Your task to perform on an android device: open chrome privacy settings Image 0: 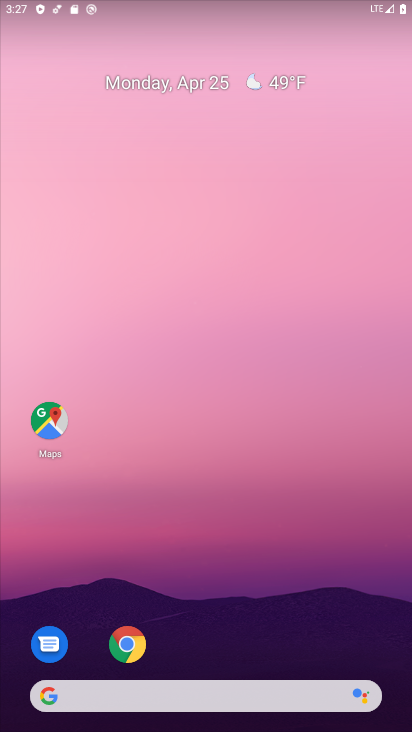
Step 0: click (140, 632)
Your task to perform on an android device: open chrome privacy settings Image 1: 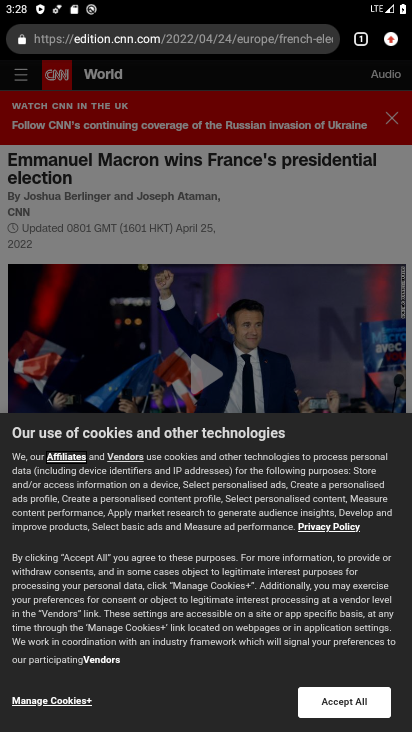
Step 1: click (391, 44)
Your task to perform on an android device: open chrome privacy settings Image 2: 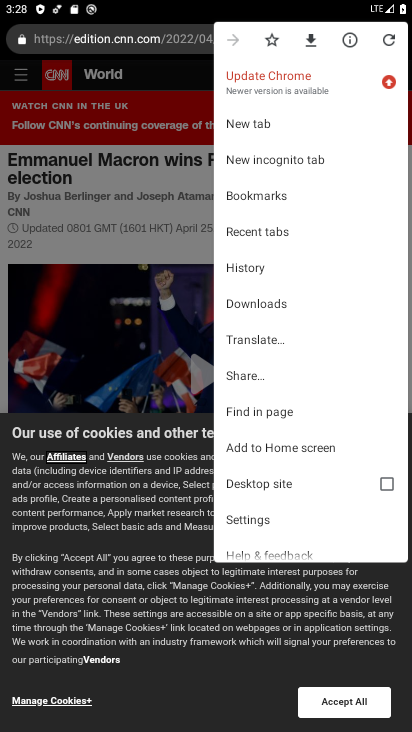
Step 2: click (264, 514)
Your task to perform on an android device: open chrome privacy settings Image 3: 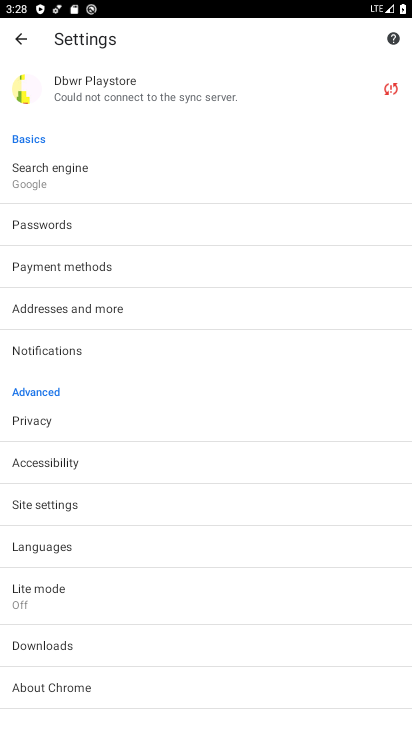
Step 3: drag from (243, 602) to (222, 213)
Your task to perform on an android device: open chrome privacy settings Image 4: 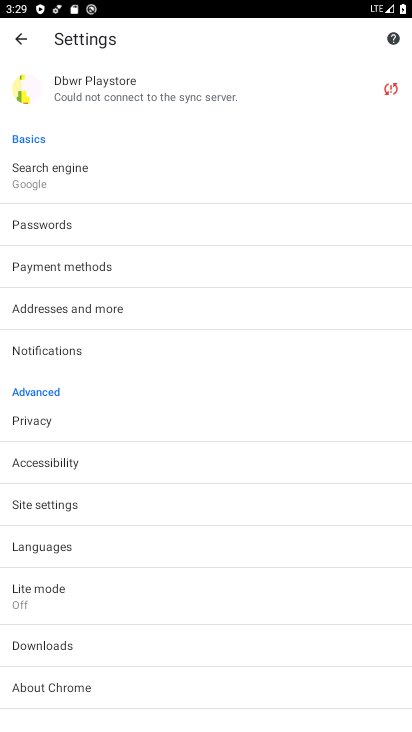
Step 4: click (108, 423)
Your task to perform on an android device: open chrome privacy settings Image 5: 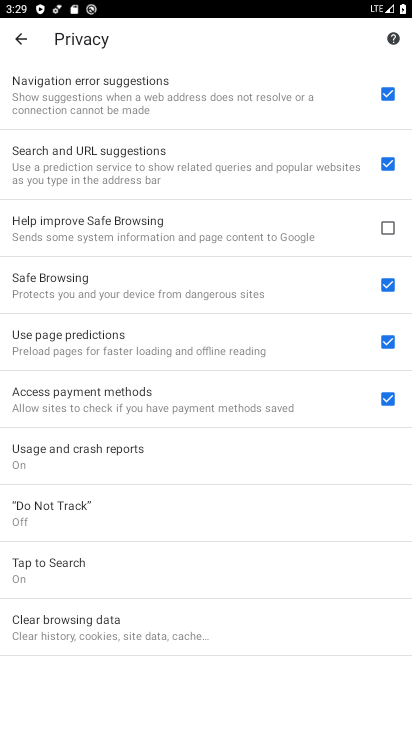
Step 5: task complete